Your task to perform on an android device: Go to battery settings Image 0: 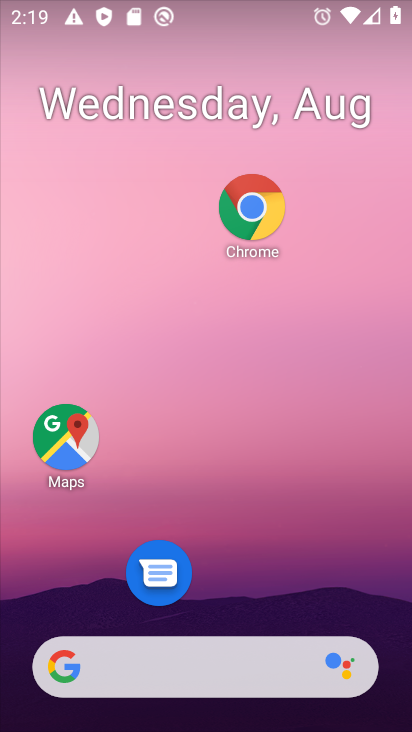
Step 0: drag from (241, 610) to (256, 194)
Your task to perform on an android device: Go to battery settings Image 1: 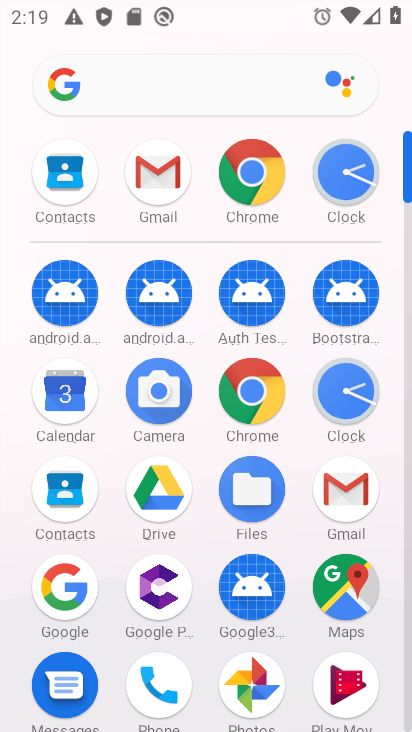
Step 1: drag from (273, 538) to (302, 118)
Your task to perform on an android device: Go to battery settings Image 2: 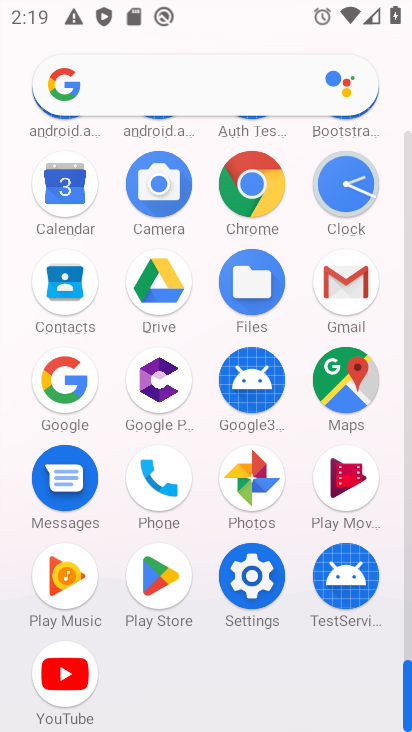
Step 2: click (260, 581)
Your task to perform on an android device: Go to battery settings Image 3: 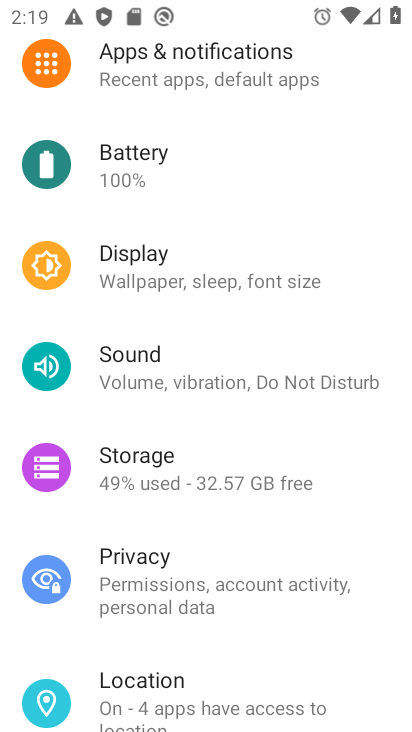
Step 3: click (245, 169)
Your task to perform on an android device: Go to battery settings Image 4: 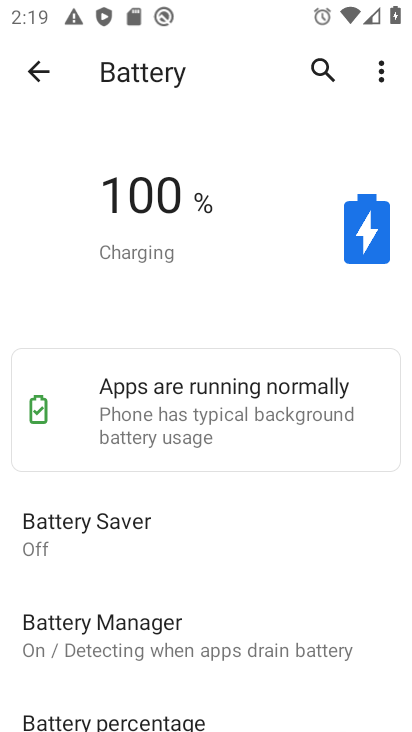
Step 4: task complete